Your task to perform on an android device: turn off notifications settings in the gmail app Image 0: 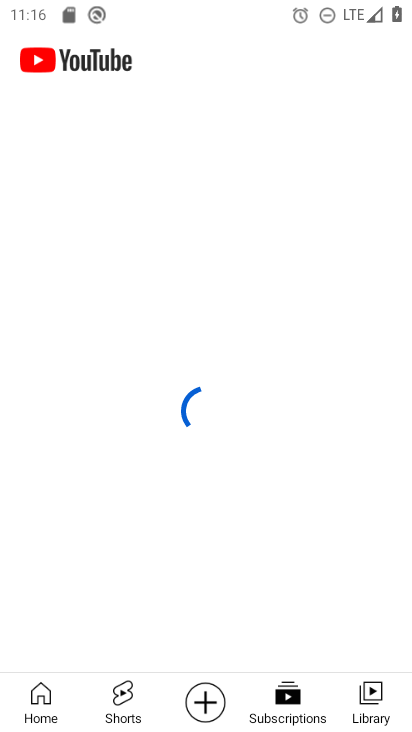
Step 0: press home button
Your task to perform on an android device: turn off notifications settings in the gmail app Image 1: 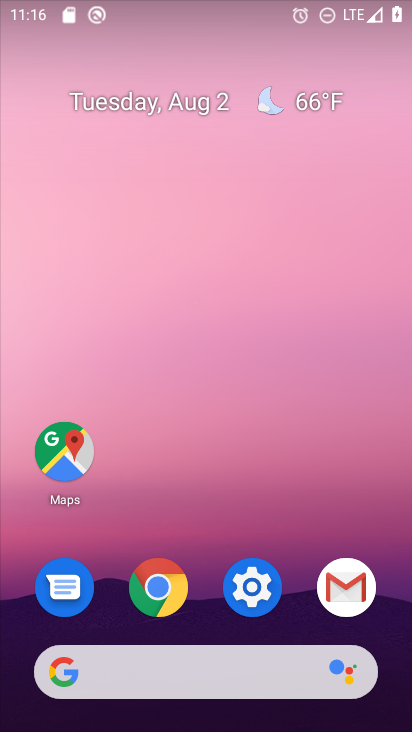
Step 1: click (339, 571)
Your task to perform on an android device: turn off notifications settings in the gmail app Image 2: 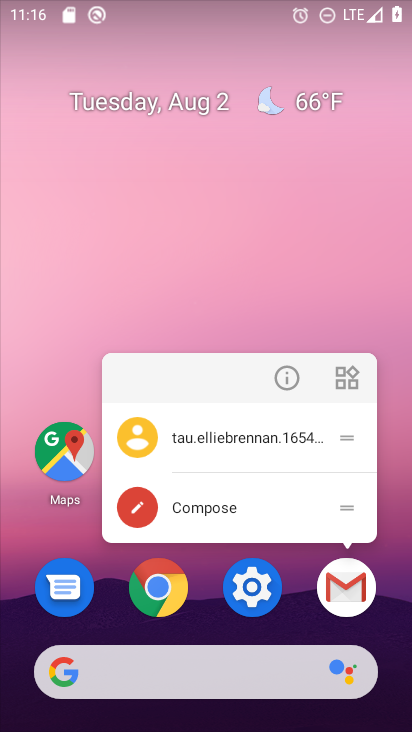
Step 2: click (341, 600)
Your task to perform on an android device: turn off notifications settings in the gmail app Image 3: 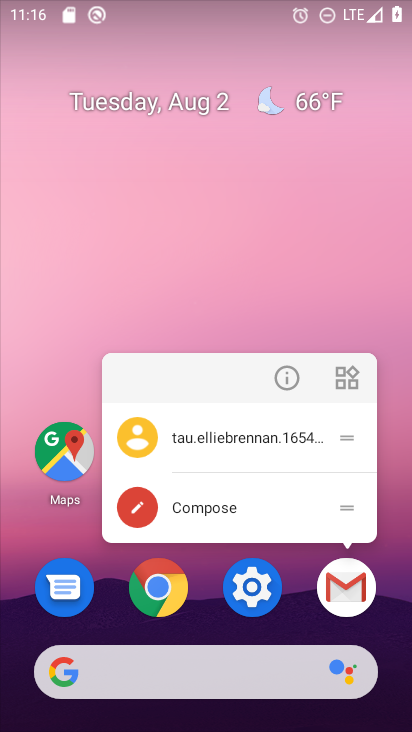
Step 3: click (353, 617)
Your task to perform on an android device: turn off notifications settings in the gmail app Image 4: 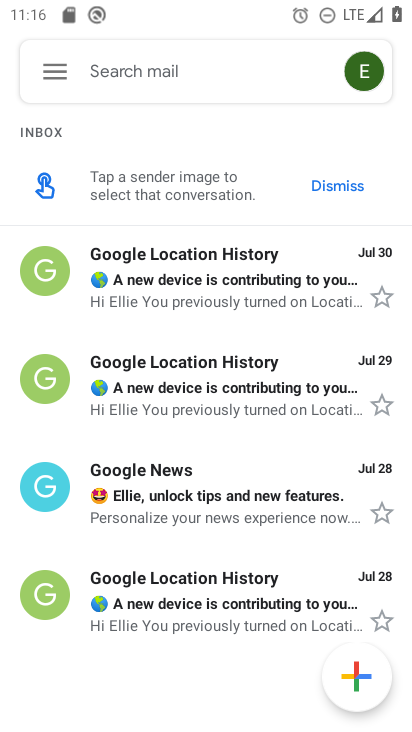
Step 4: click (51, 84)
Your task to perform on an android device: turn off notifications settings in the gmail app Image 5: 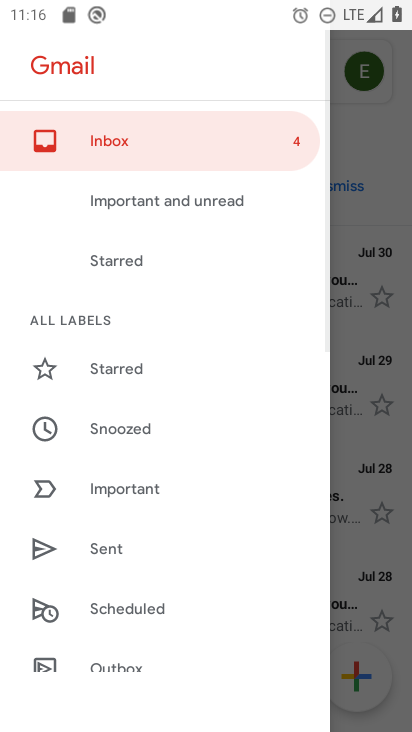
Step 5: drag from (135, 628) to (170, 367)
Your task to perform on an android device: turn off notifications settings in the gmail app Image 6: 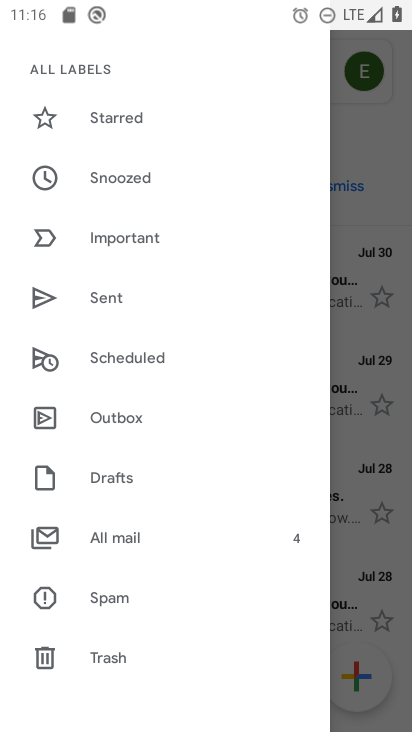
Step 6: drag from (133, 592) to (156, 382)
Your task to perform on an android device: turn off notifications settings in the gmail app Image 7: 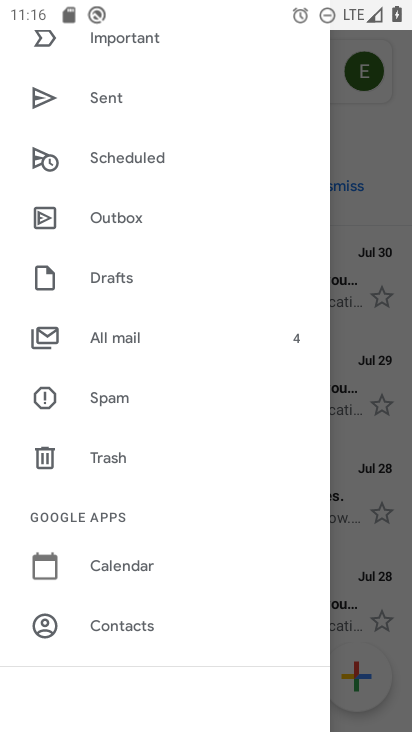
Step 7: drag from (100, 585) to (133, 431)
Your task to perform on an android device: turn off notifications settings in the gmail app Image 8: 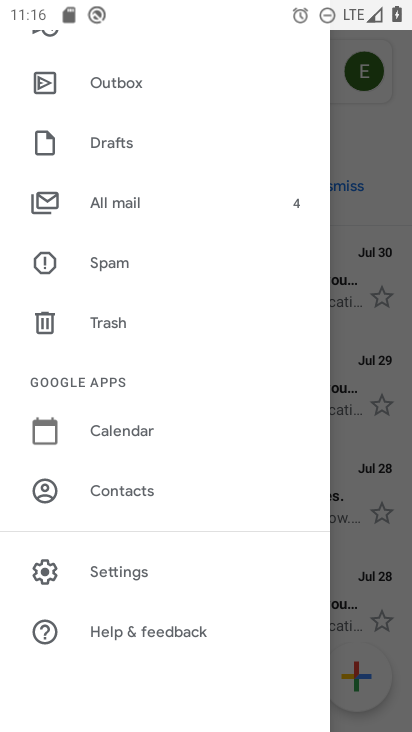
Step 8: click (124, 575)
Your task to perform on an android device: turn off notifications settings in the gmail app Image 9: 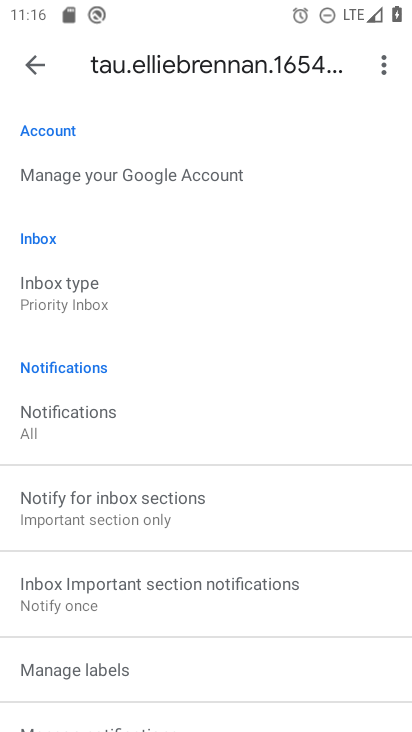
Step 9: click (70, 422)
Your task to perform on an android device: turn off notifications settings in the gmail app Image 10: 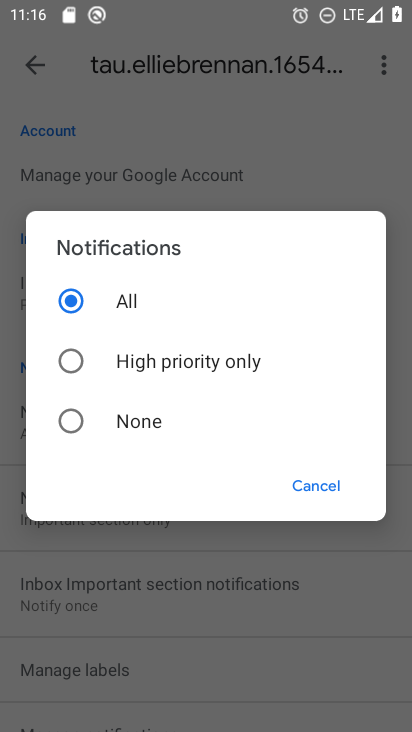
Step 10: click (143, 429)
Your task to perform on an android device: turn off notifications settings in the gmail app Image 11: 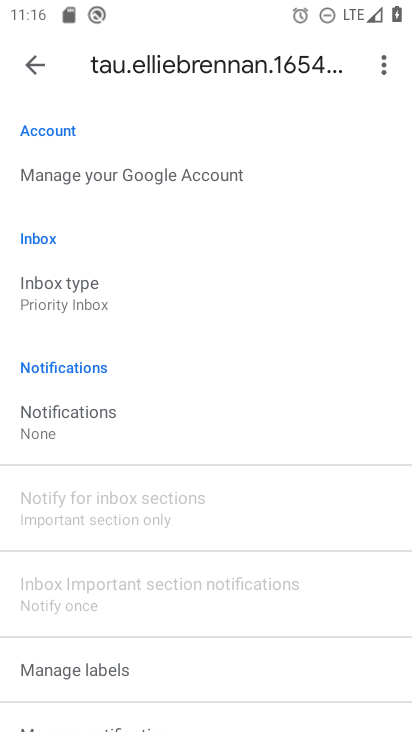
Step 11: task complete